Your task to perform on an android device: Open eBay Image 0: 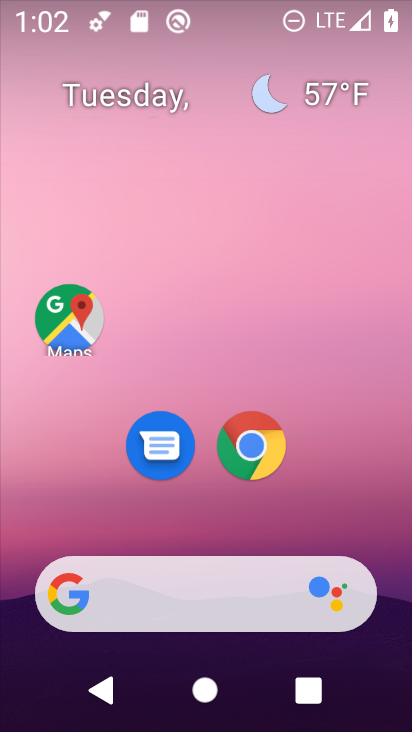
Step 0: drag from (388, 554) to (380, 278)
Your task to perform on an android device: Open eBay Image 1: 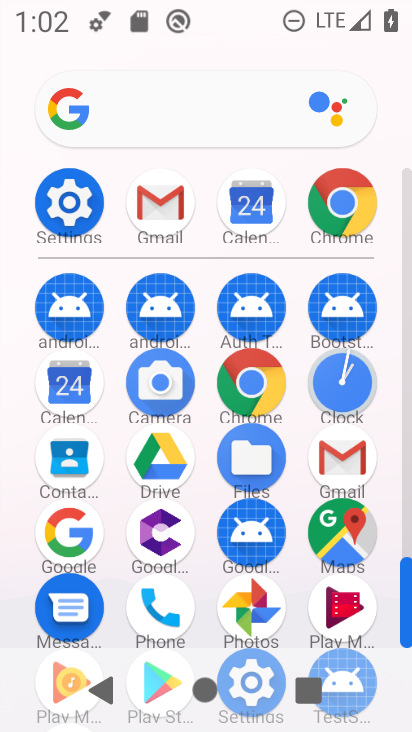
Step 1: click (272, 399)
Your task to perform on an android device: Open eBay Image 2: 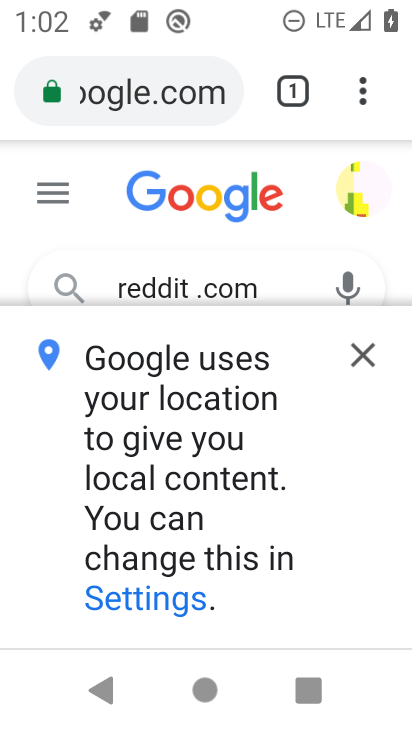
Step 2: click (173, 100)
Your task to perform on an android device: Open eBay Image 3: 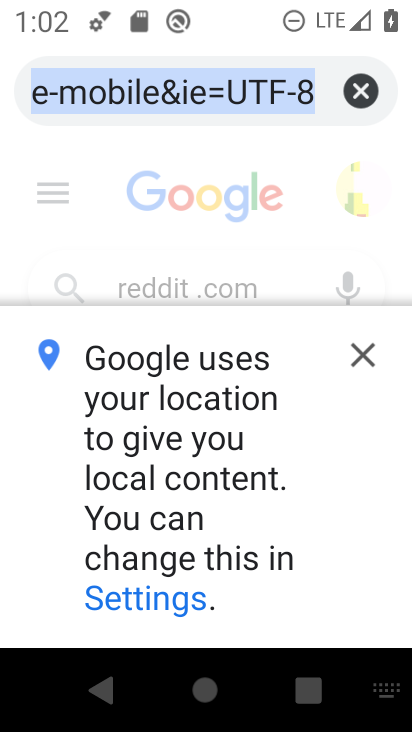
Step 3: click (358, 79)
Your task to perform on an android device: Open eBay Image 4: 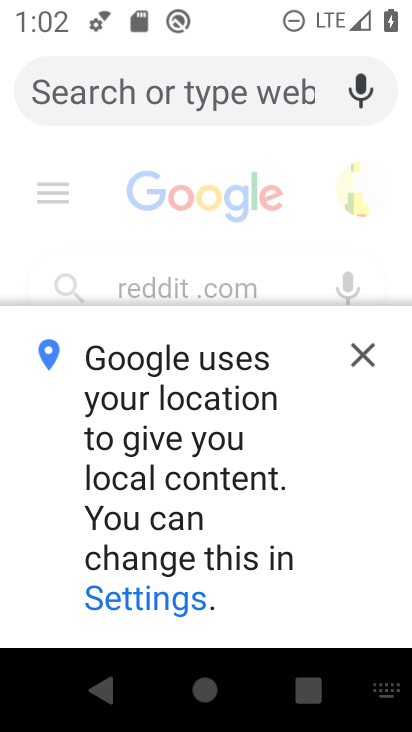
Step 4: type "ebay"
Your task to perform on an android device: Open eBay Image 5: 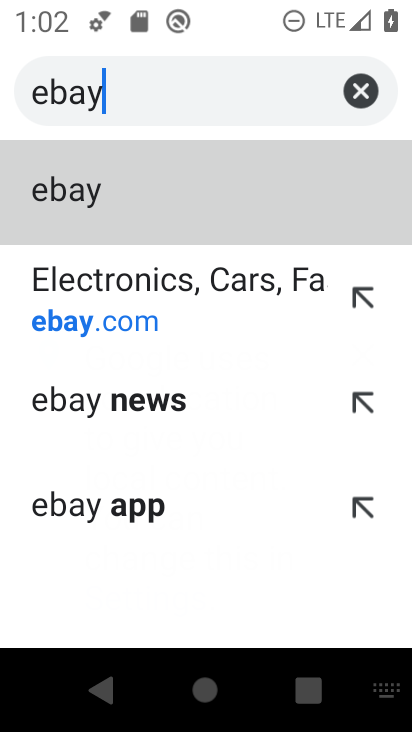
Step 5: click (149, 212)
Your task to perform on an android device: Open eBay Image 6: 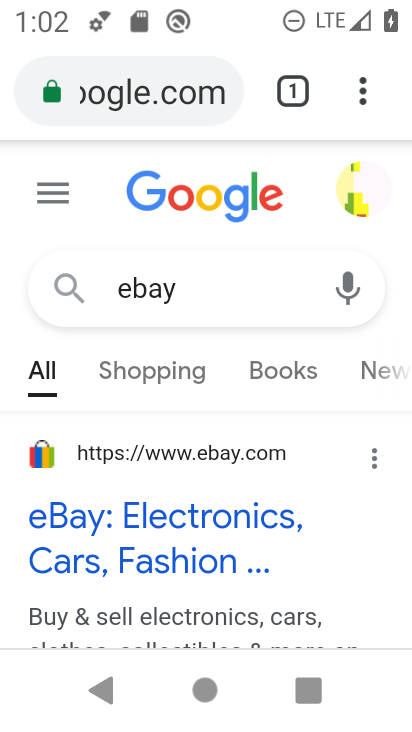
Step 6: click (232, 524)
Your task to perform on an android device: Open eBay Image 7: 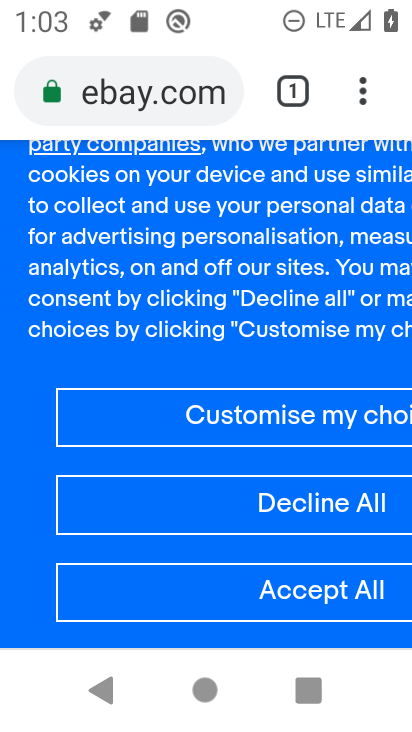
Step 7: task complete